Your task to perform on an android device: visit the assistant section in the google photos Image 0: 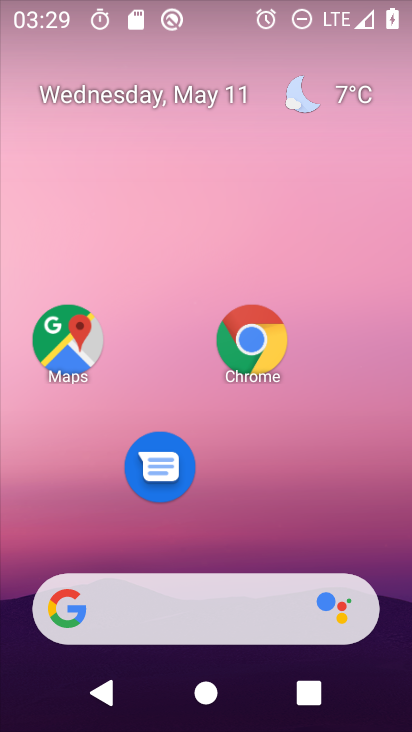
Step 0: press home button
Your task to perform on an android device: visit the assistant section in the google photos Image 1: 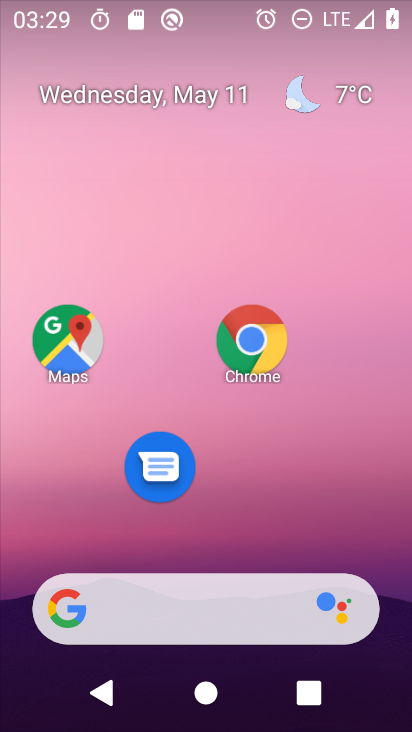
Step 1: drag from (204, 618) to (322, 196)
Your task to perform on an android device: visit the assistant section in the google photos Image 2: 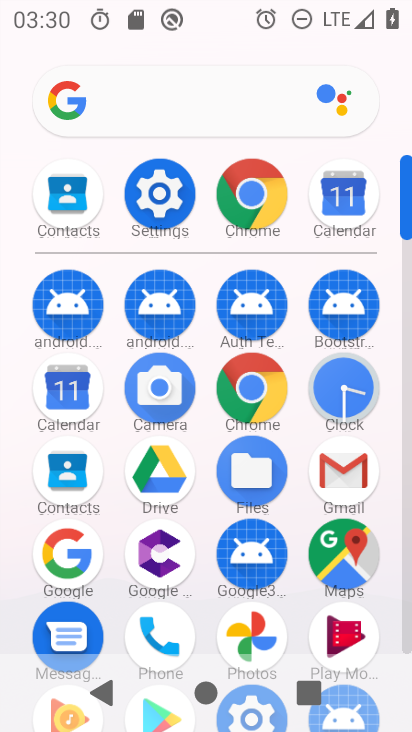
Step 2: click (259, 633)
Your task to perform on an android device: visit the assistant section in the google photos Image 3: 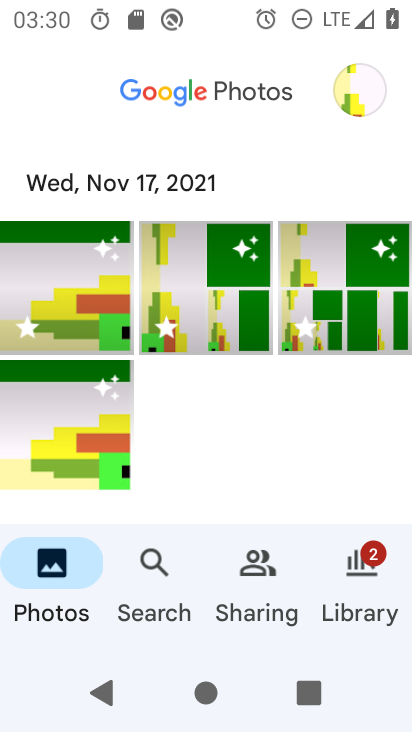
Step 3: click (158, 591)
Your task to perform on an android device: visit the assistant section in the google photos Image 4: 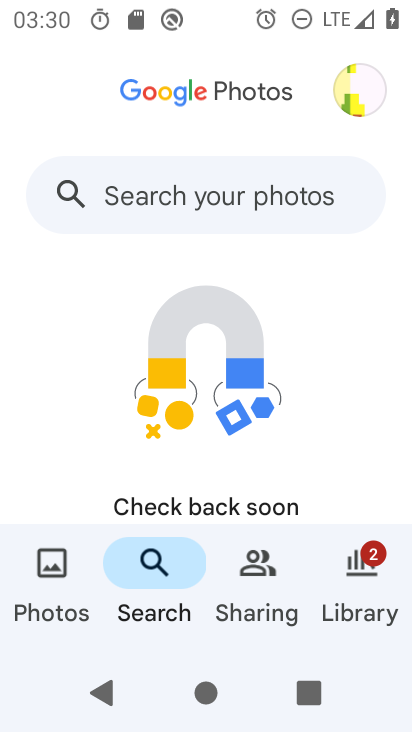
Step 4: task complete